Your task to perform on an android device: turn on bluetooth scan Image 0: 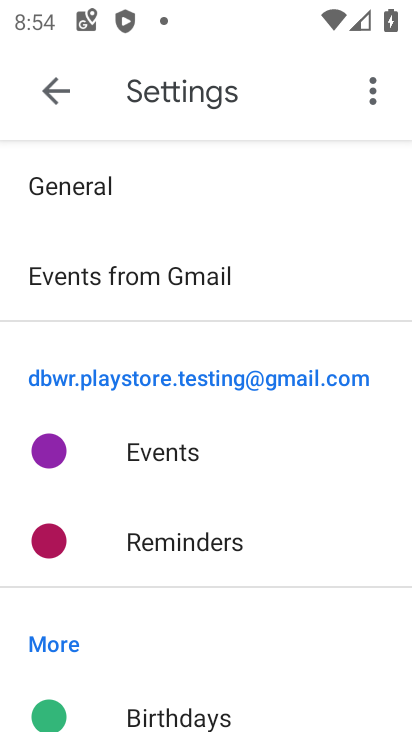
Step 0: drag from (190, 632) to (227, 200)
Your task to perform on an android device: turn on bluetooth scan Image 1: 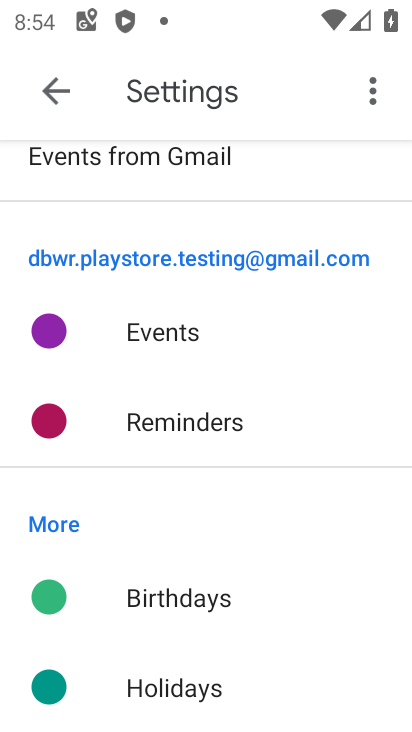
Step 1: drag from (317, 277) to (377, 669)
Your task to perform on an android device: turn on bluetooth scan Image 2: 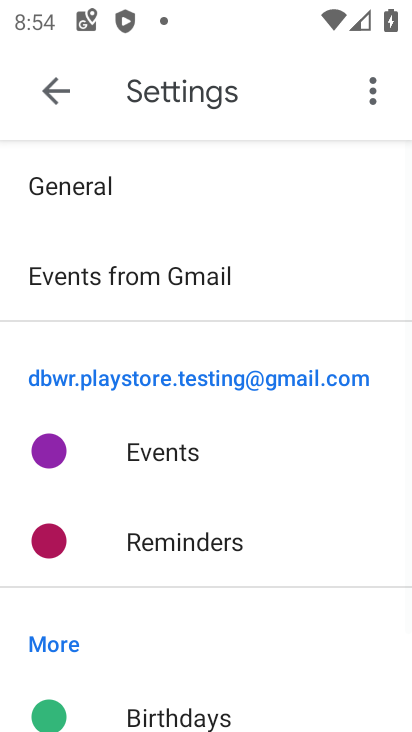
Step 2: drag from (295, 316) to (322, 456)
Your task to perform on an android device: turn on bluetooth scan Image 3: 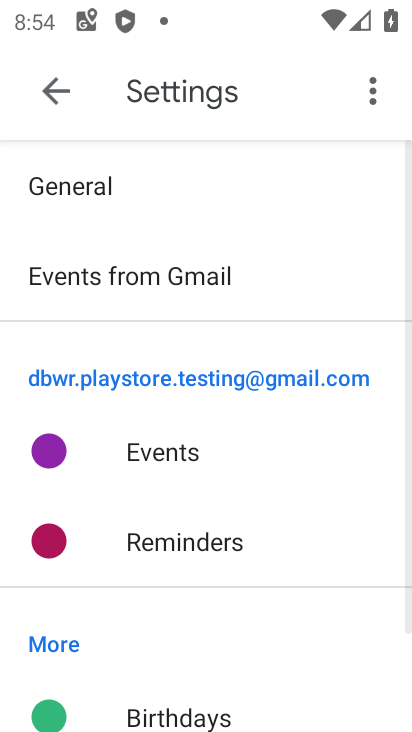
Step 3: press home button
Your task to perform on an android device: turn on bluetooth scan Image 4: 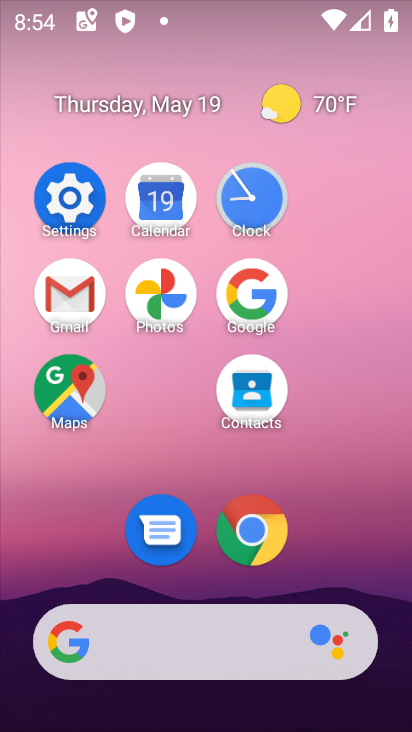
Step 4: click (55, 202)
Your task to perform on an android device: turn on bluetooth scan Image 5: 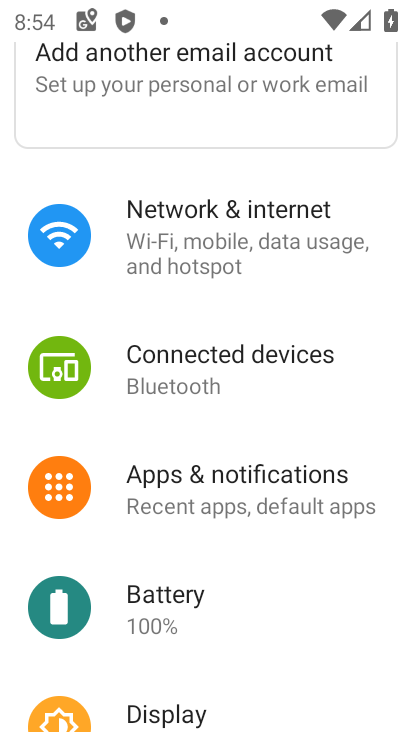
Step 5: drag from (260, 643) to (283, 213)
Your task to perform on an android device: turn on bluetooth scan Image 6: 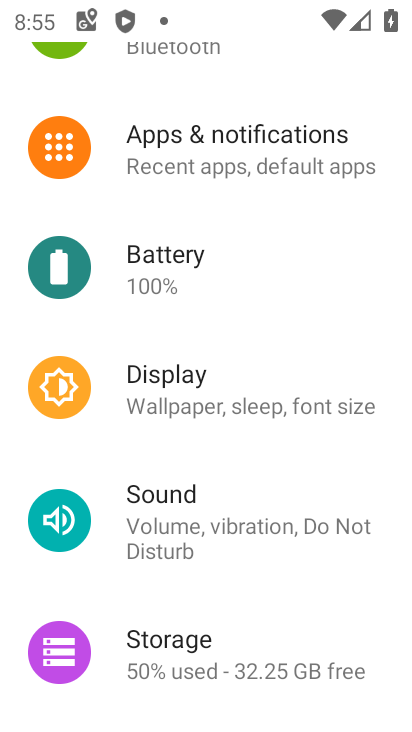
Step 6: drag from (300, 575) to (330, 237)
Your task to perform on an android device: turn on bluetooth scan Image 7: 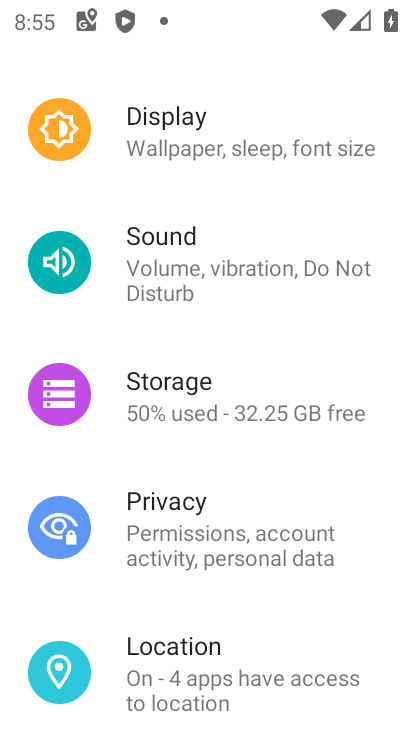
Step 7: click (265, 655)
Your task to perform on an android device: turn on bluetooth scan Image 8: 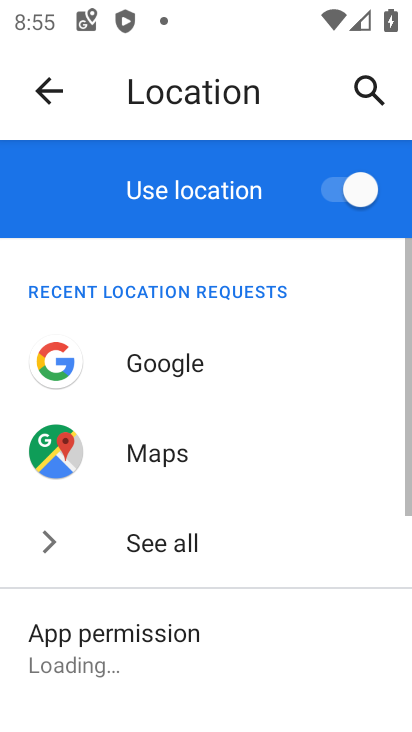
Step 8: drag from (260, 649) to (268, 214)
Your task to perform on an android device: turn on bluetooth scan Image 9: 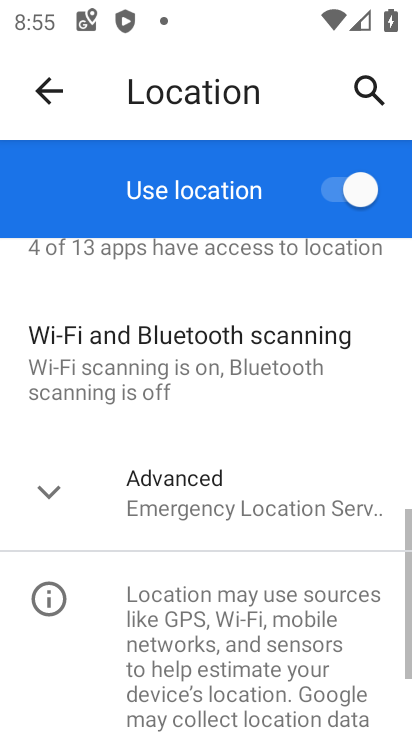
Step 9: click (278, 350)
Your task to perform on an android device: turn on bluetooth scan Image 10: 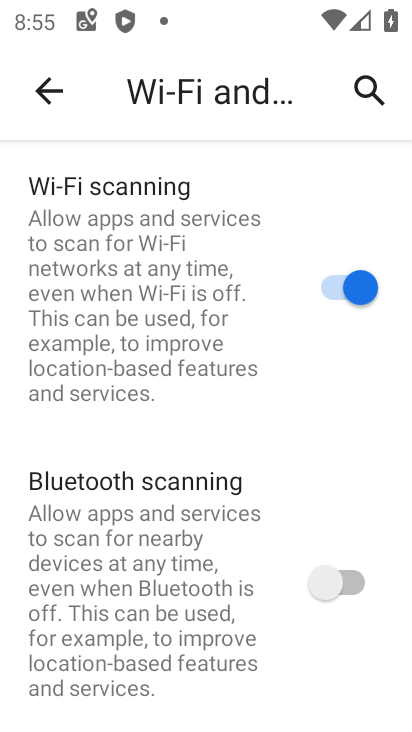
Step 10: click (339, 577)
Your task to perform on an android device: turn on bluetooth scan Image 11: 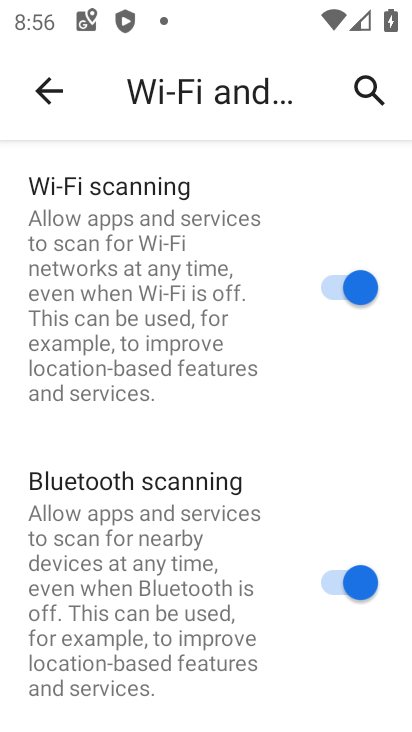
Step 11: task complete